Your task to perform on an android device: Open privacy settings Image 0: 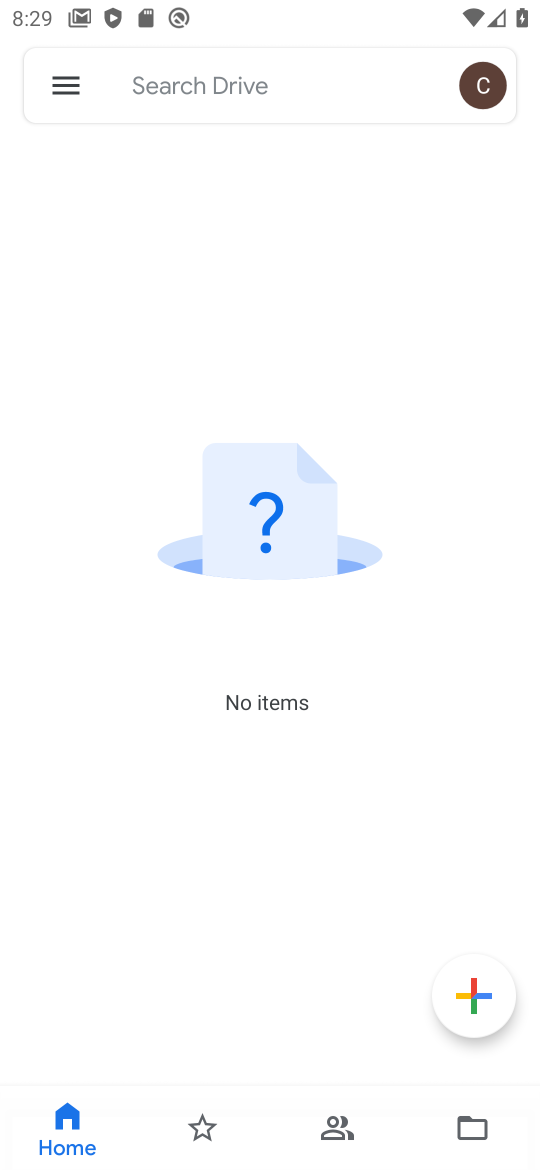
Step 0: press home button
Your task to perform on an android device: Open privacy settings Image 1: 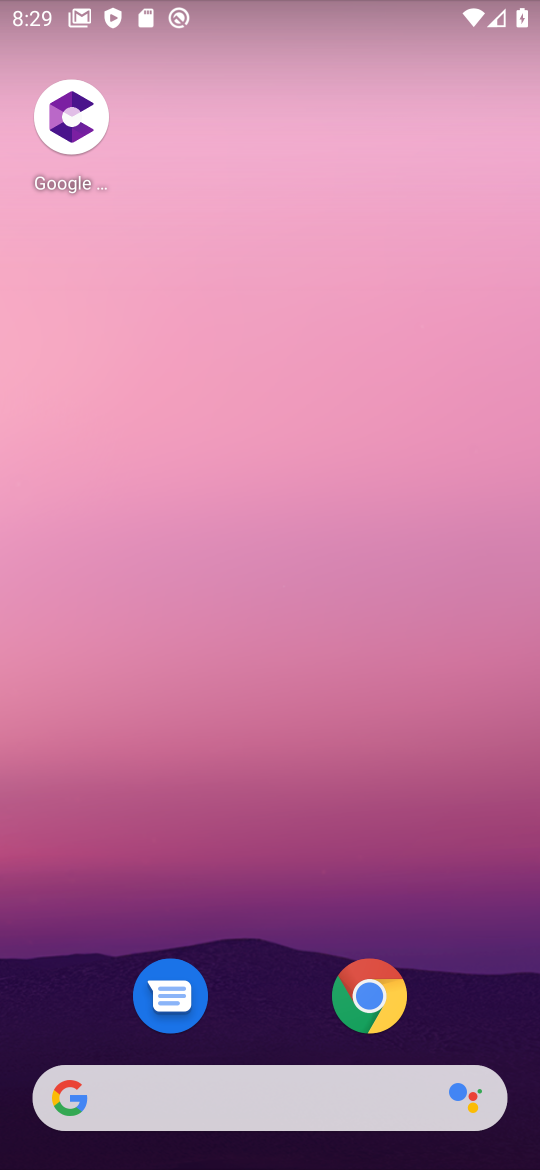
Step 1: drag from (303, 945) to (292, 1)
Your task to perform on an android device: Open privacy settings Image 2: 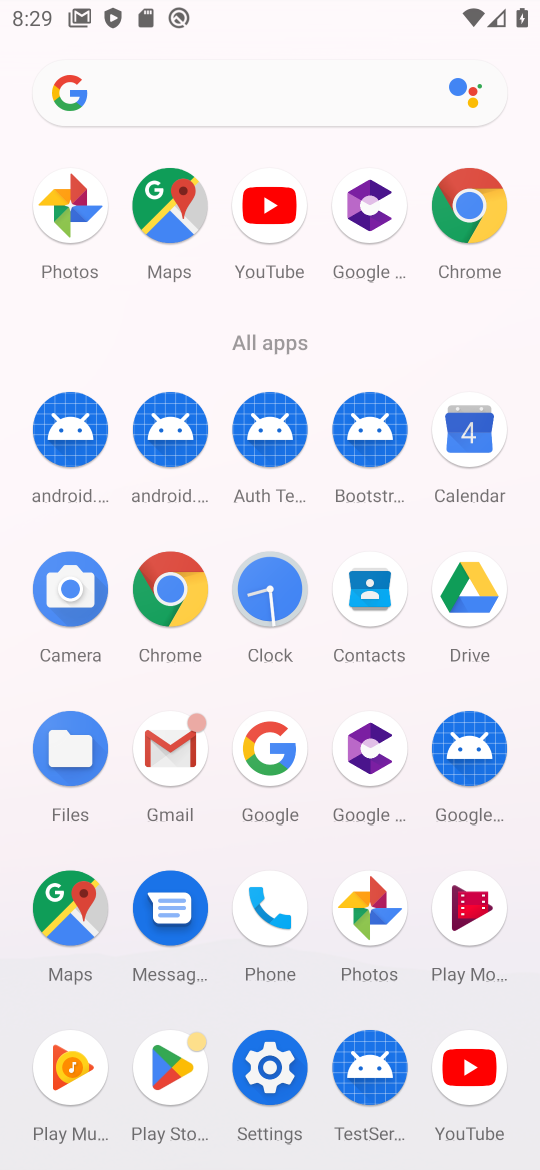
Step 2: click (474, 203)
Your task to perform on an android device: Open privacy settings Image 3: 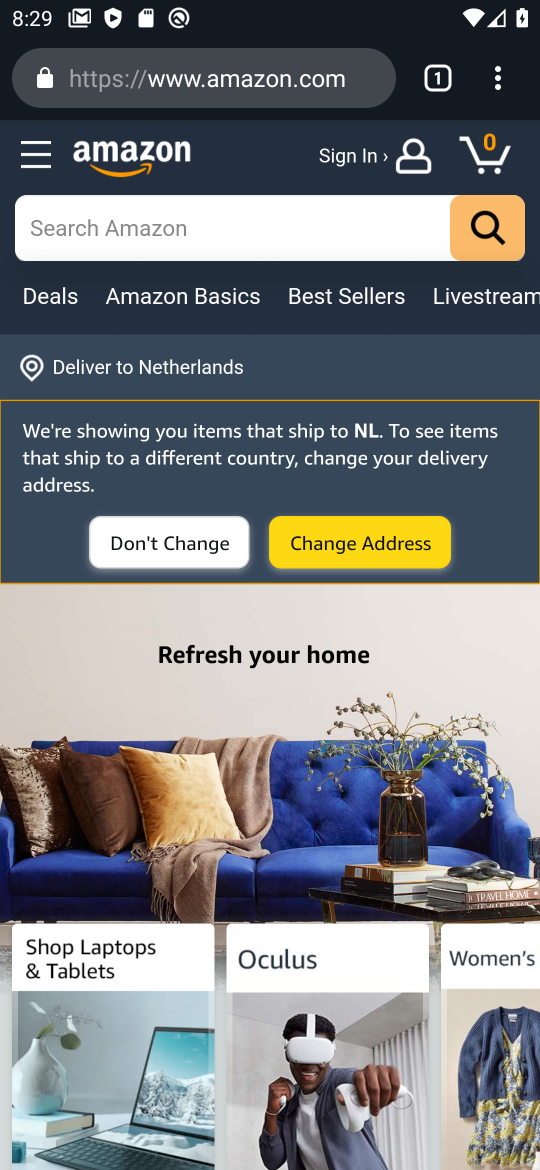
Step 3: click (498, 83)
Your task to perform on an android device: Open privacy settings Image 4: 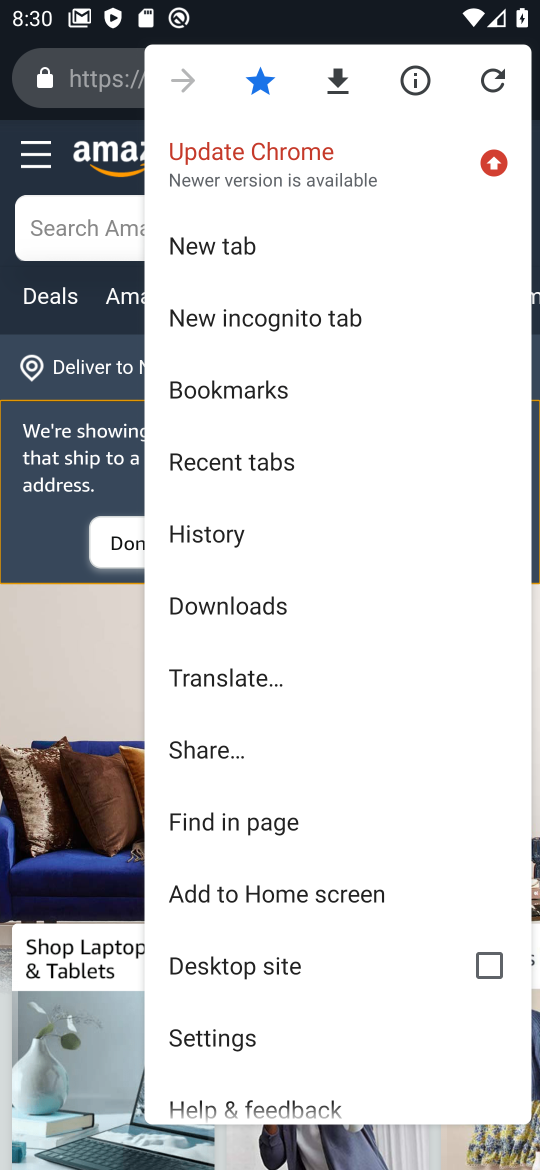
Step 4: click (223, 1032)
Your task to perform on an android device: Open privacy settings Image 5: 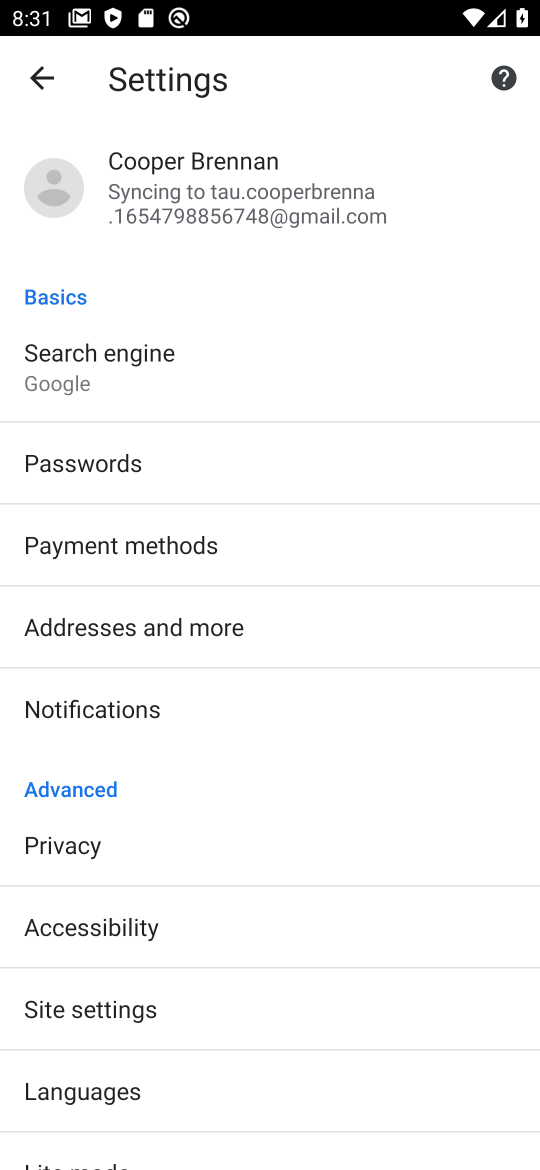
Step 5: click (84, 843)
Your task to perform on an android device: Open privacy settings Image 6: 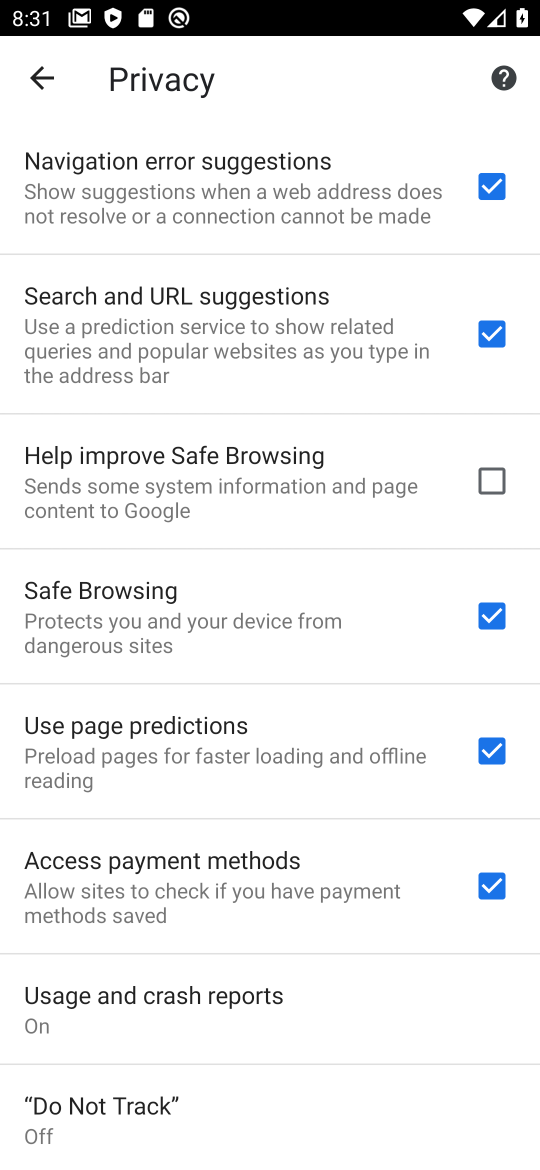
Step 6: task complete